Your task to perform on an android device: Search for seafood restaurants on Google Maps Image 0: 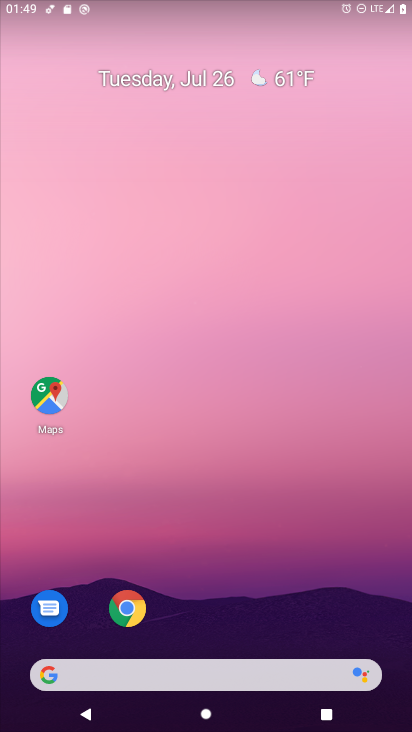
Step 0: click (37, 384)
Your task to perform on an android device: Search for seafood restaurants on Google Maps Image 1: 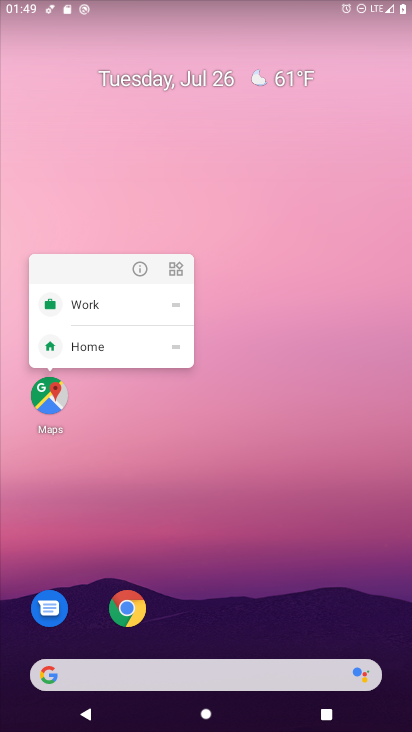
Step 1: click (55, 386)
Your task to perform on an android device: Search for seafood restaurants on Google Maps Image 2: 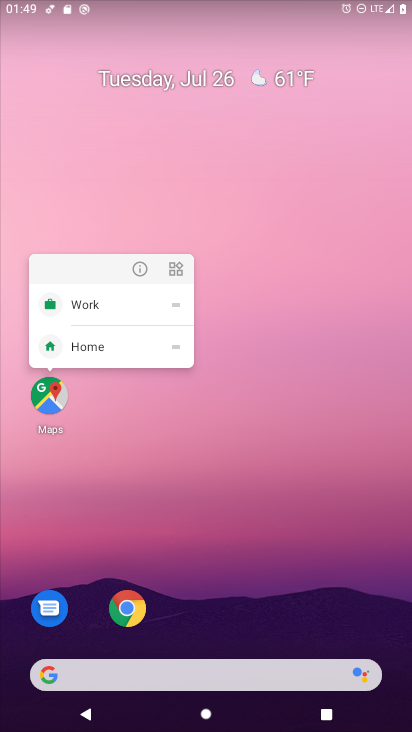
Step 2: click (55, 385)
Your task to perform on an android device: Search for seafood restaurants on Google Maps Image 3: 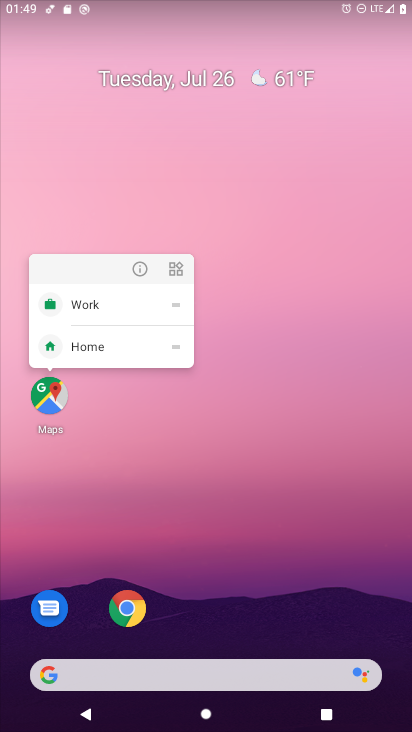
Step 3: click (55, 385)
Your task to perform on an android device: Search for seafood restaurants on Google Maps Image 4: 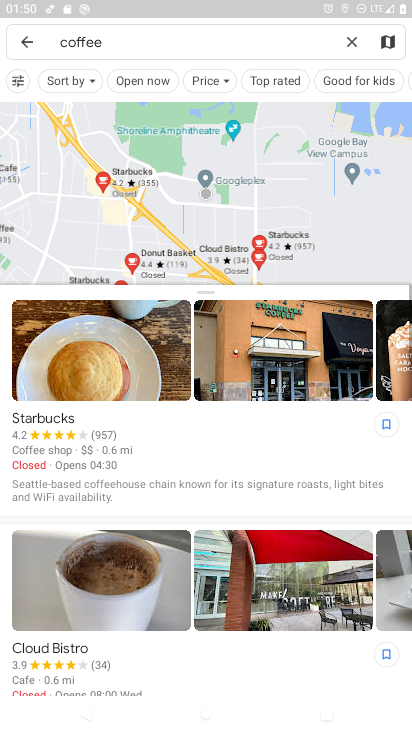
Step 4: click (354, 39)
Your task to perform on an android device: Search for seafood restaurants on Google Maps Image 5: 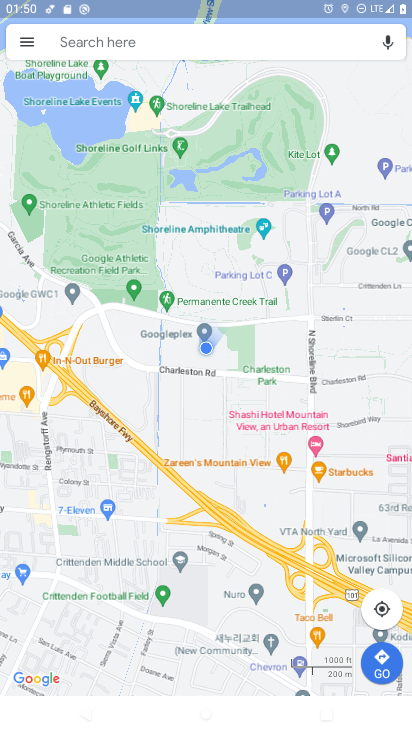
Step 5: click (128, 39)
Your task to perform on an android device: Search for seafood restaurants on Google Maps Image 6: 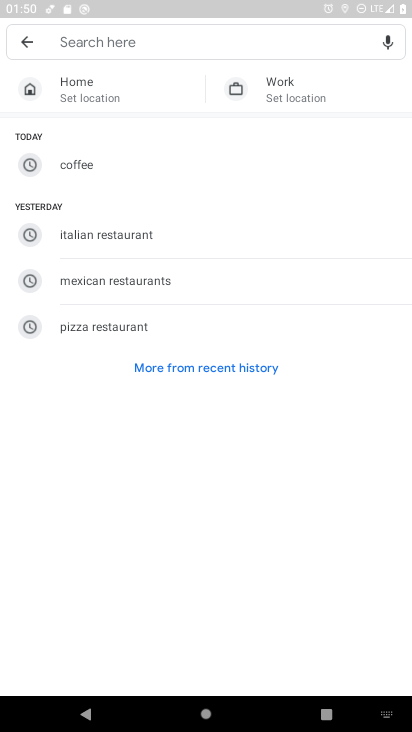
Step 6: click (112, 32)
Your task to perform on an android device: Search for seafood restaurants on Google Maps Image 7: 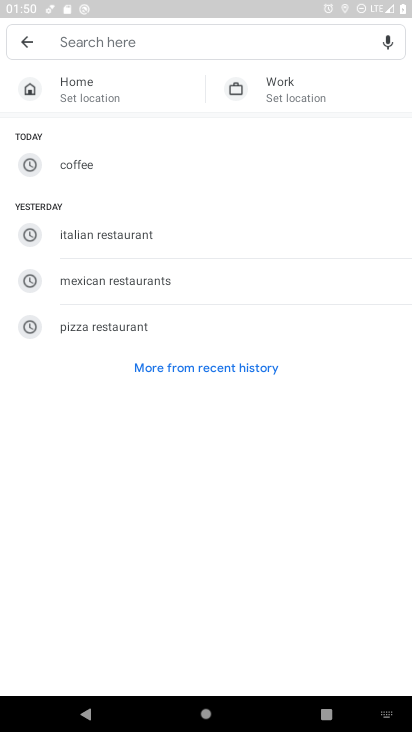
Step 7: type "seafood restaurants"
Your task to perform on an android device: Search for seafood restaurants on Google Maps Image 8: 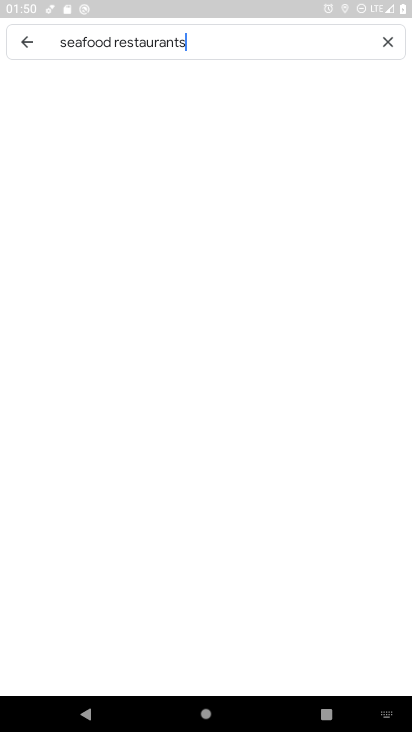
Step 8: type ""
Your task to perform on an android device: Search for seafood restaurants on Google Maps Image 9: 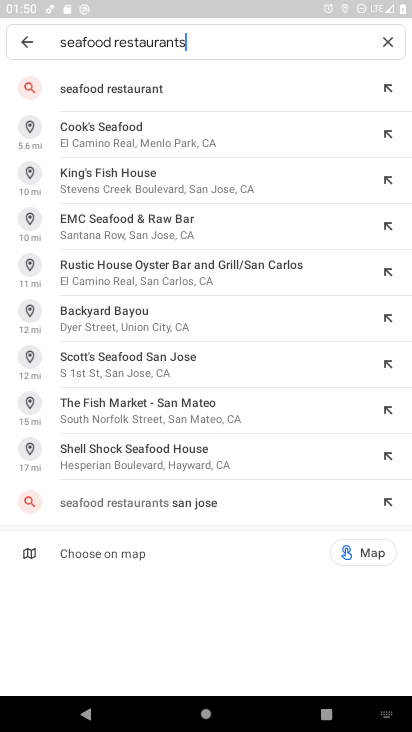
Step 9: click (105, 88)
Your task to perform on an android device: Search for seafood restaurants on Google Maps Image 10: 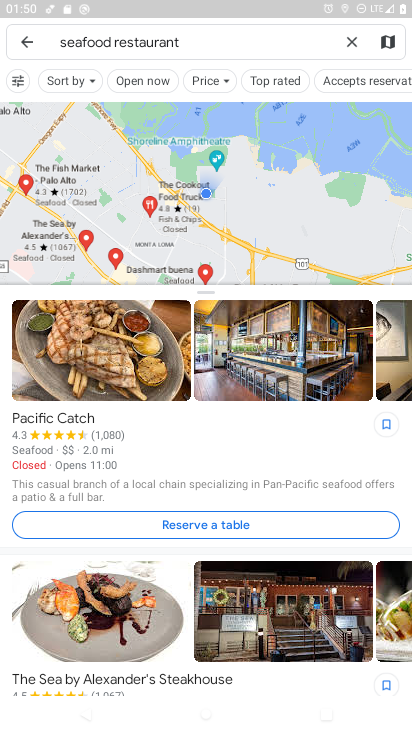
Step 10: task complete